Your task to perform on an android device: What is the recent news? Image 0: 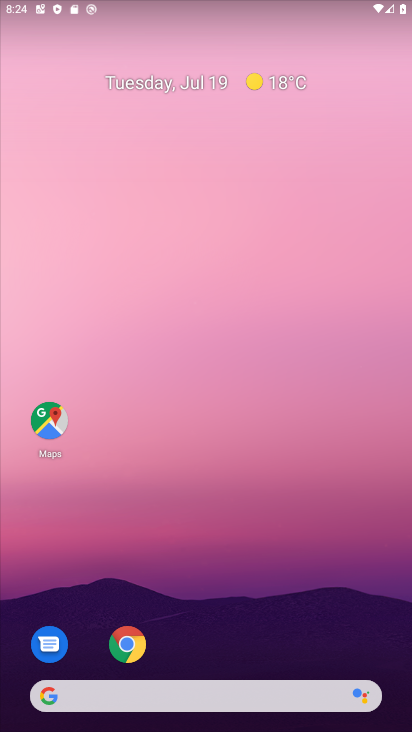
Step 0: drag from (0, 235) to (395, 265)
Your task to perform on an android device: What is the recent news? Image 1: 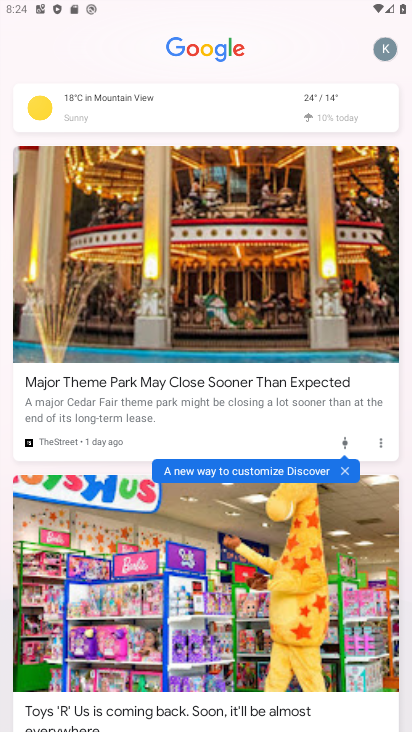
Step 1: task complete